Your task to perform on an android device: Open Chrome and go to the settings page Image 0: 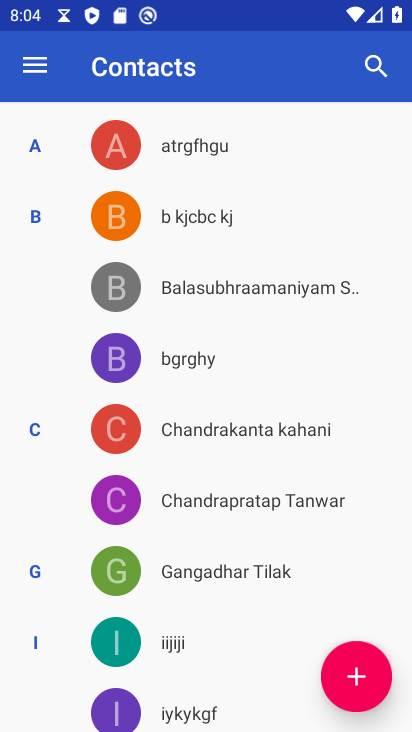
Step 0: press home button
Your task to perform on an android device: Open Chrome and go to the settings page Image 1: 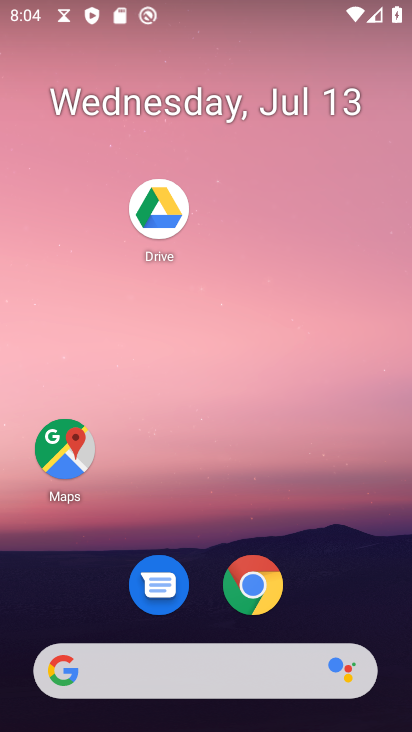
Step 1: click (258, 591)
Your task to perform on an android device: Open Chrome and go to the settings page Image 2: 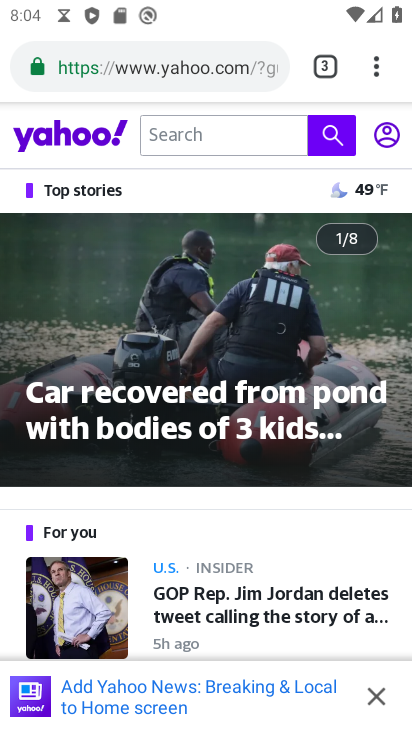
Step 2: task complete